Your task to perform on an android device: Open CNN.com Image 0: 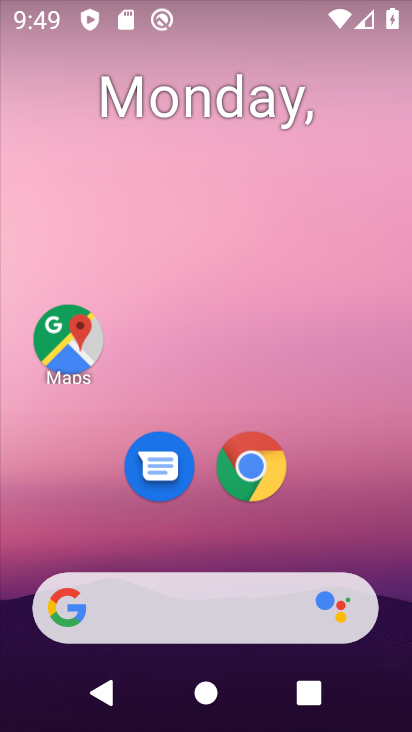
Step 0: click (246, 468)
Your task to perform on an android device: Open CNN.com Image 1: 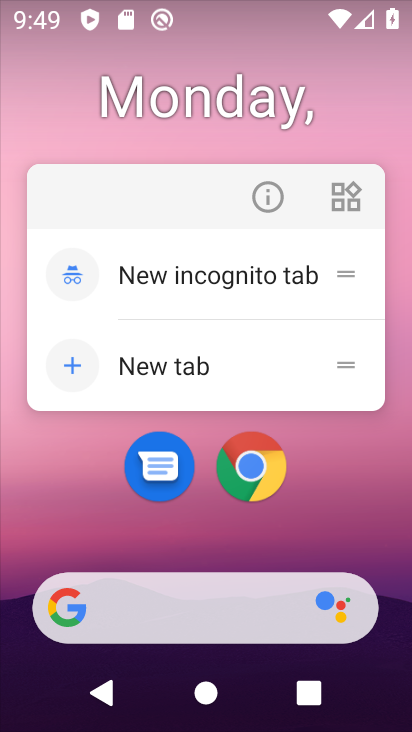
Step 1: click (256, 465)
Your task to perform on an android device: Open CNN.com Image 2: 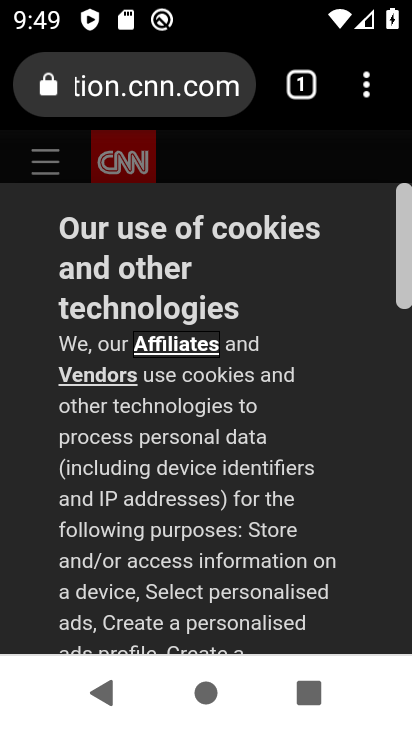
Step 2: click (165, 70)
Your task to perform on an android device: Open CNN.com Image 3: 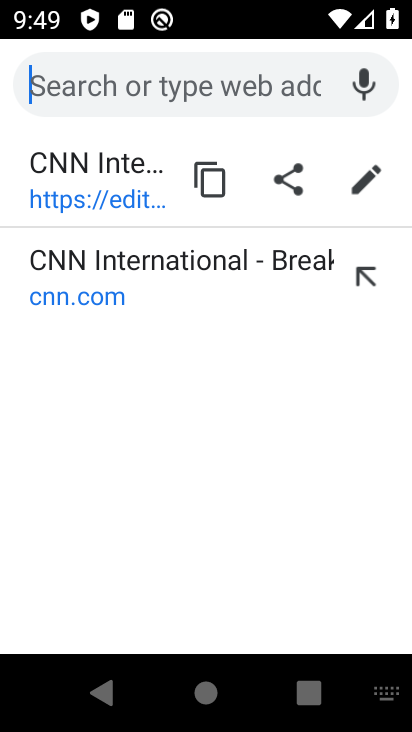
Step 3: type "CNN.com"
Your task to perform on an android device: Open CNN.com Image 4: 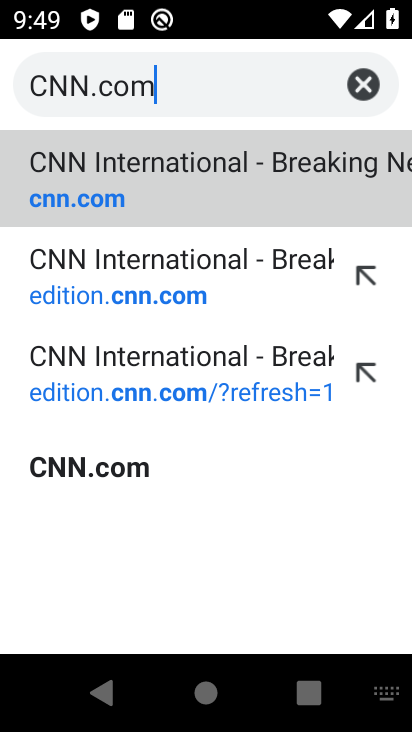
Step 4: click (82, 192)
Your task to perform on an android device: Open CNN.com Image 5: 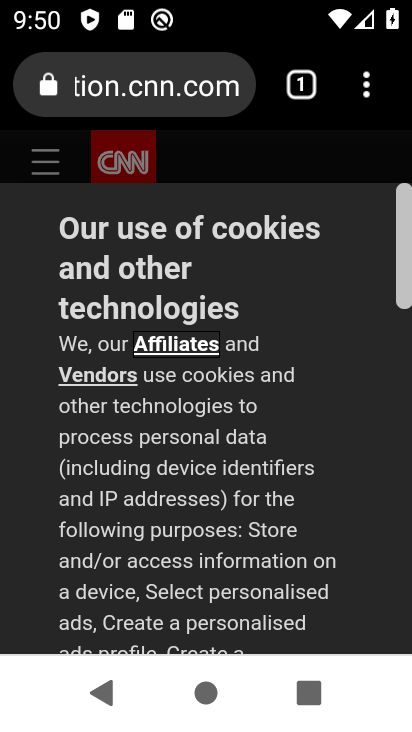
Step 5: task complete